Your task to perform on an android device: delete location history Image 0: 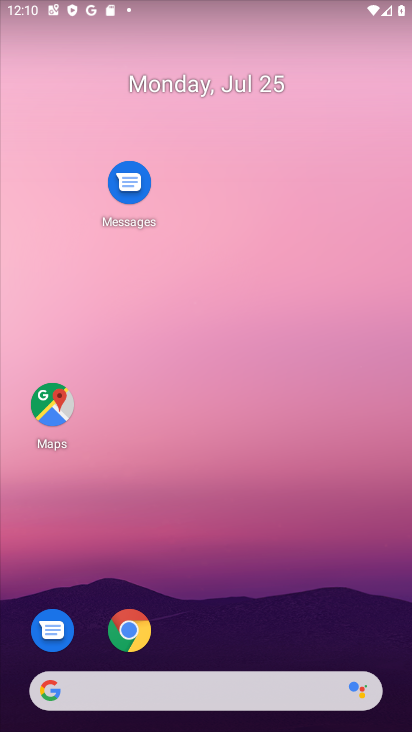
Step 0: drag from (215, 643) to (235, 163)
Your task to perform on an android device: delete location history Image 1: 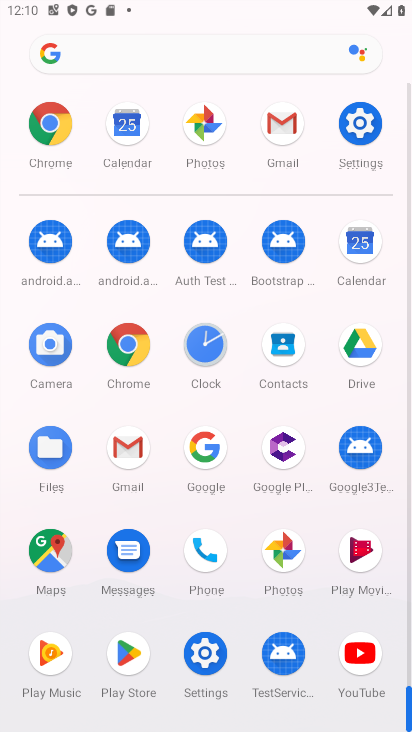
Step 1: click (41, 527)
Your task to perform on an android device: delete location history Image 2: 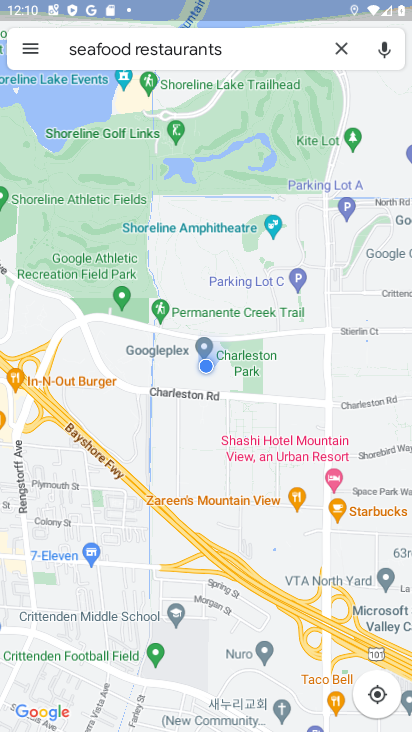
Step 2: click (19, 44)
Your task to perform on an android device: delete location history Image 3: 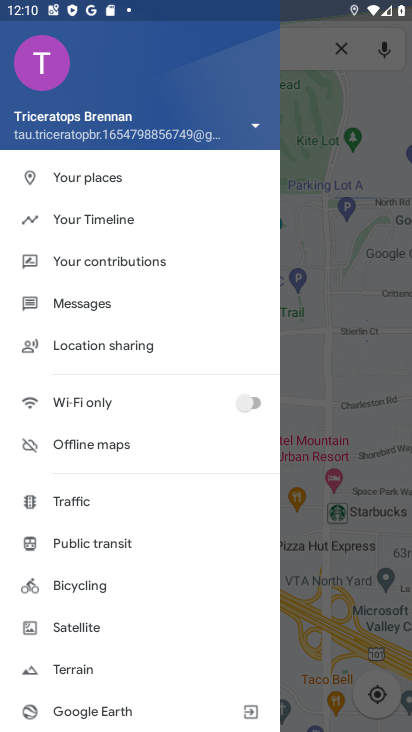
Step 3: click (107, 229)
Your task to perform on an android device: delete location history Image 4: 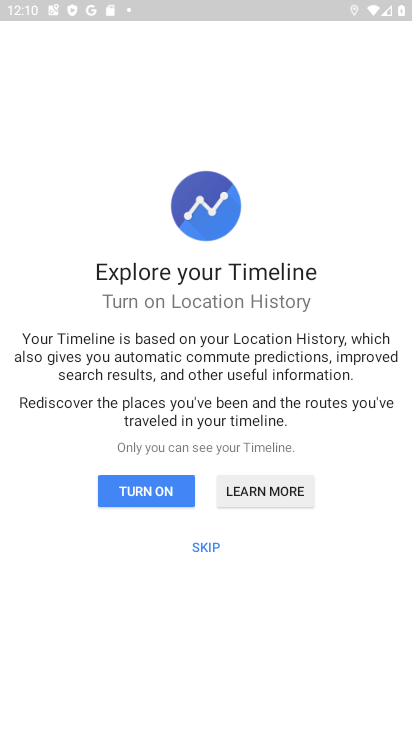
Step 4: click (200, 543)
Your task to perform on an android device: delete location history Image 5: 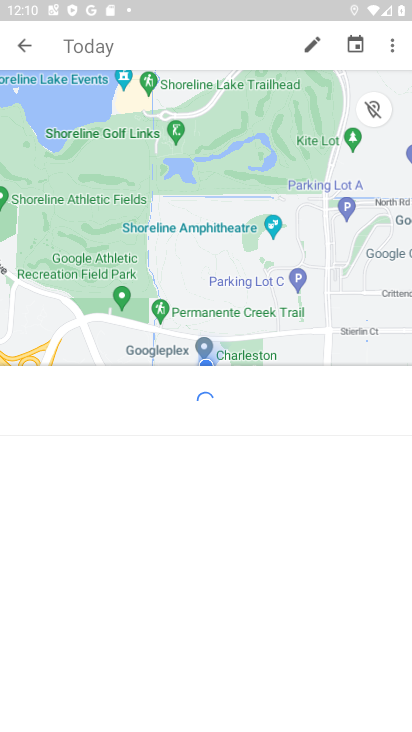
Step 5: click (386, 47)
Your task to perform on an android device: delete location history Image 6: 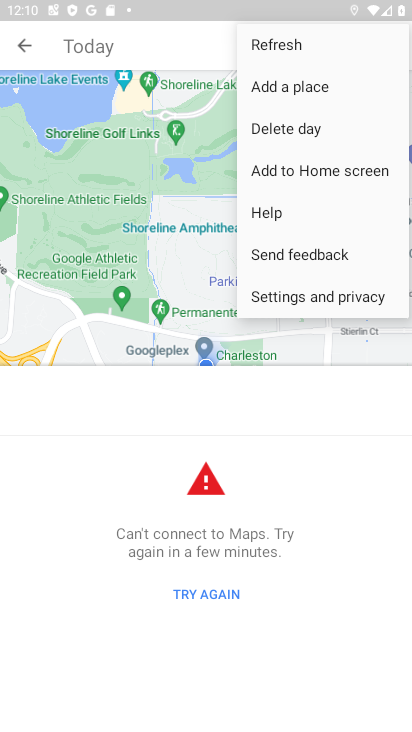
Step 6: click (290, 305)
Your task to perform on an android device: delete location history Image 7: 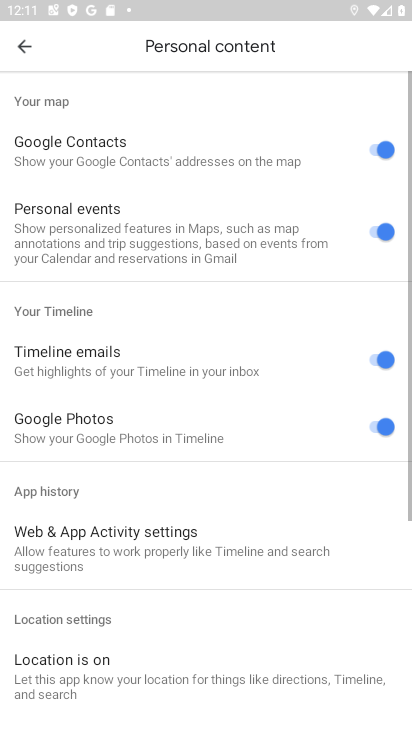
Step 7: drag from (151, 569) to (94, 3)
Your task to perform on an android device: delete location history Image 8: 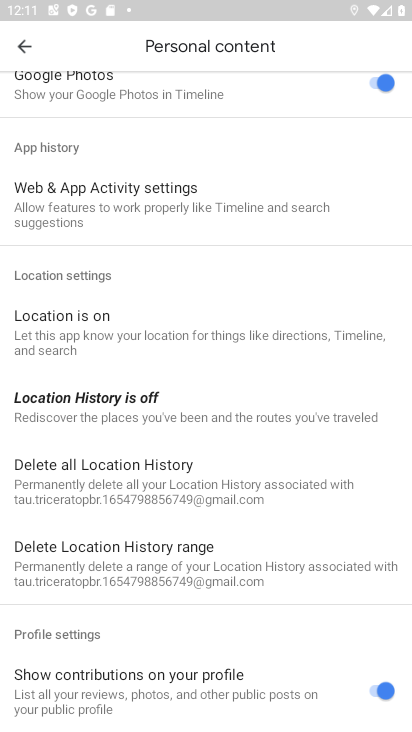
Step 8: click (141, 454)
Your task to perform on an android device: delete location history Image 9: 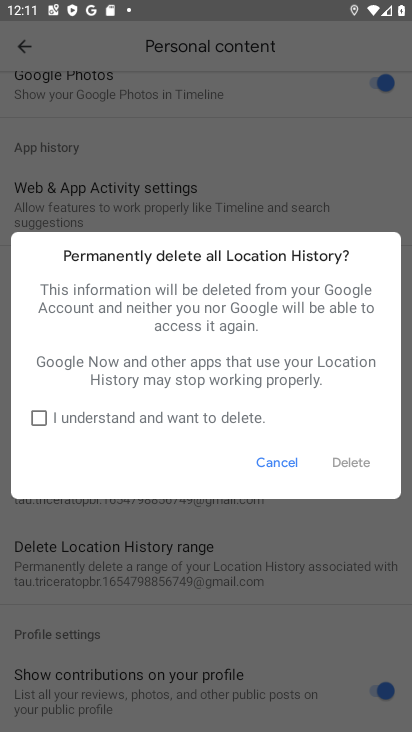
Step 9: click (139, 414)
Your task to perform on an android device: delete location history Image 10: 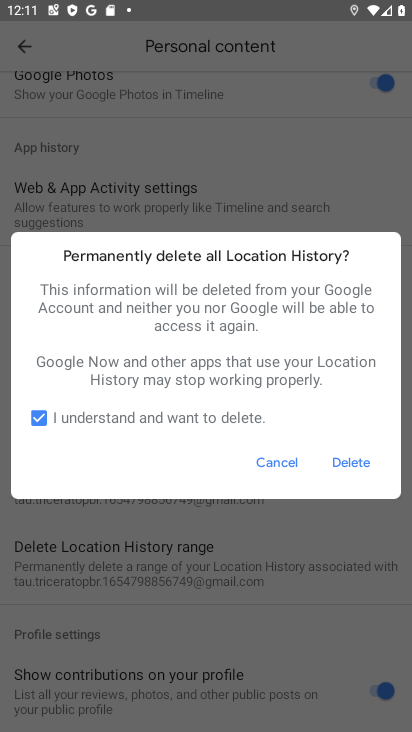
Step 10: click (360, 473)
Your task to perform on an android device: delete location history Image 11: 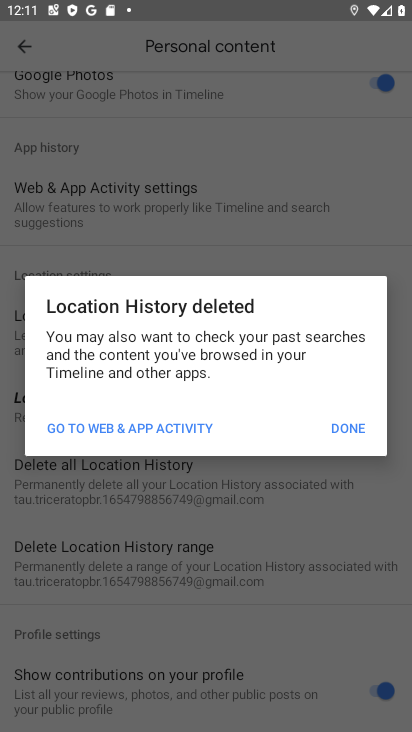
Step 11: click (332, 432)
Your task to perform on an android device: delete location history Image 12: 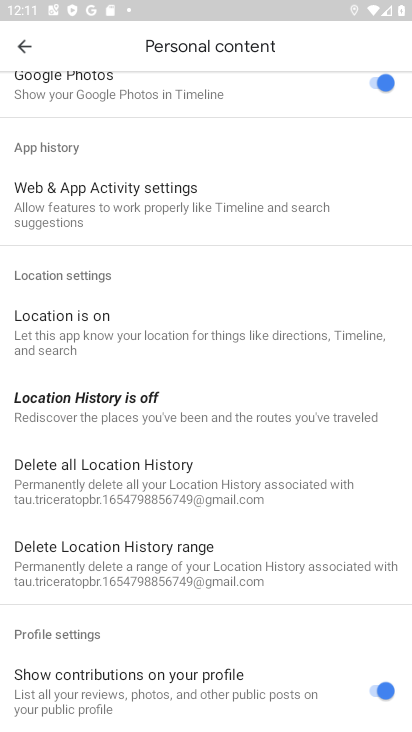
Step 12: task complete